Your task to perform on an android device: turn off notifications settings in the gmail app Image 0: 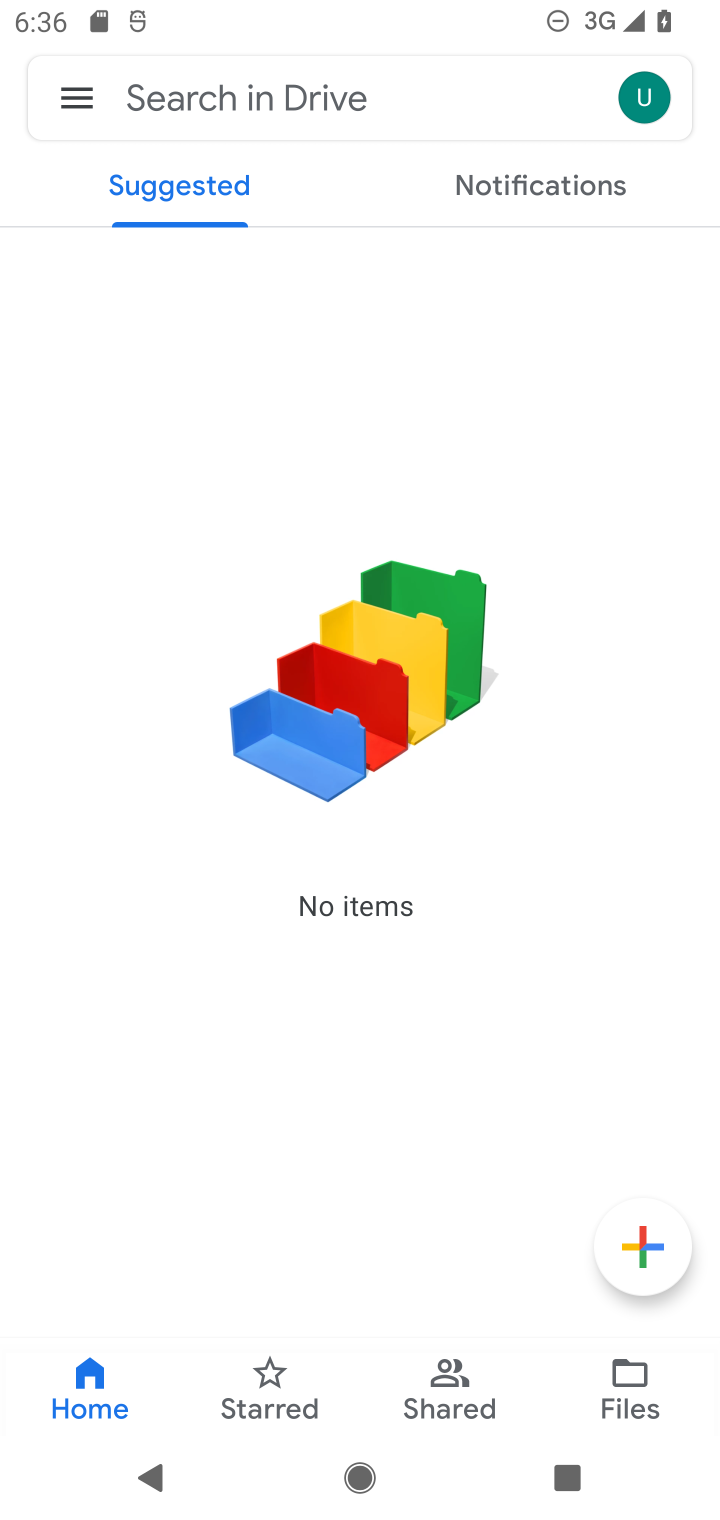
Step 0: press home button
Your task to perform on an android device: turn off notifications settings in the gmail app Image 1: 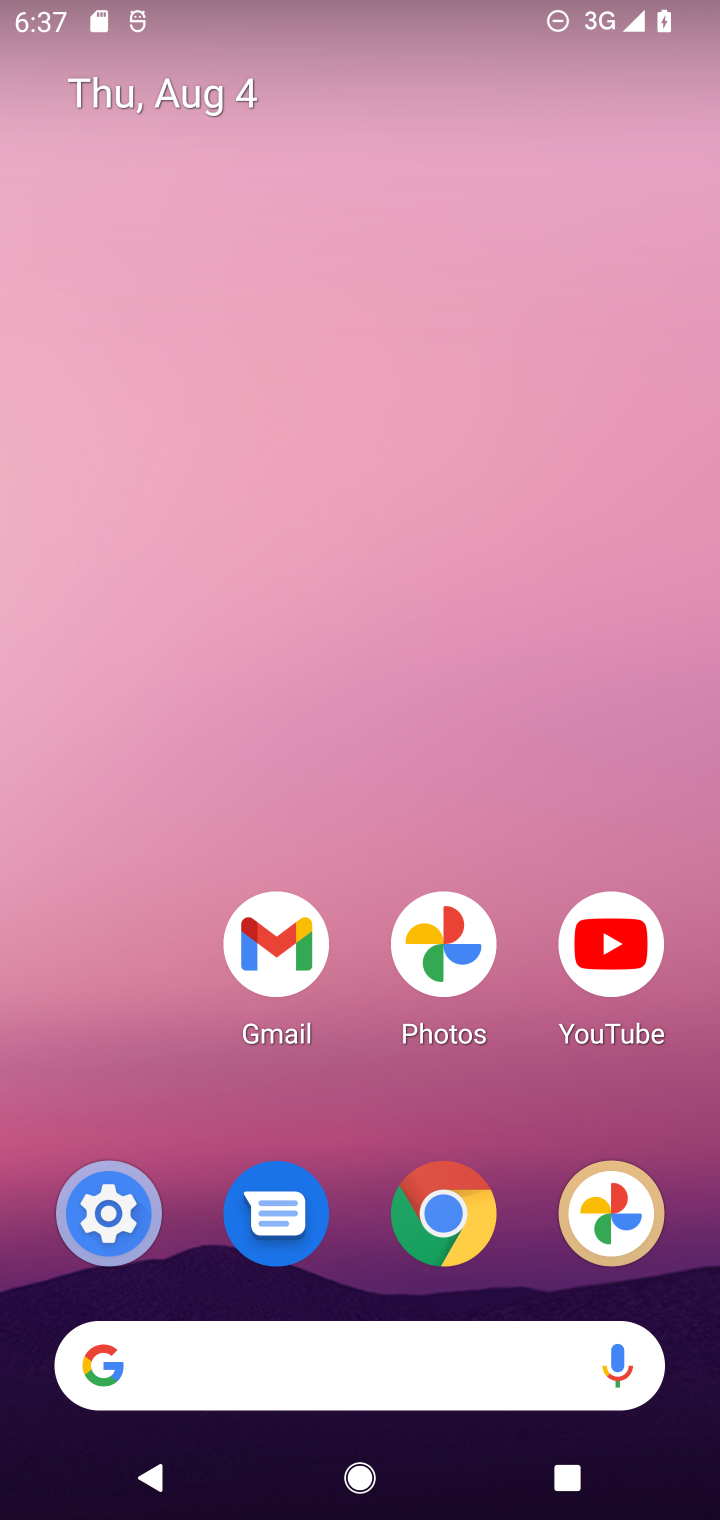
Step 1: drag from (155, 1105) to (108, 203)
Your task to perform on an android device: turn off notifications settings in the gmail app Image 2: 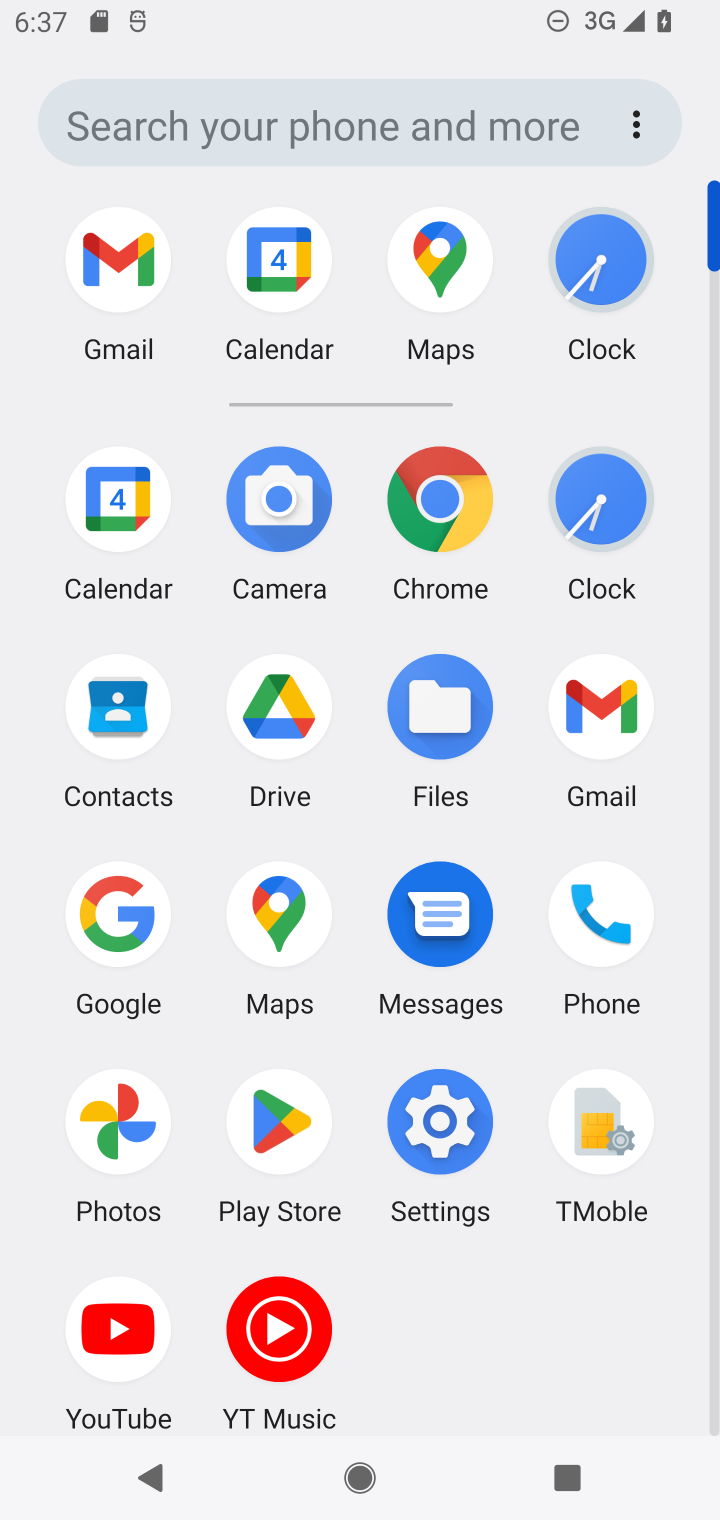
Step 2: click (605, 707)
Your task to perform on an android device: turn off notifications settings in the gmail app Image 3: 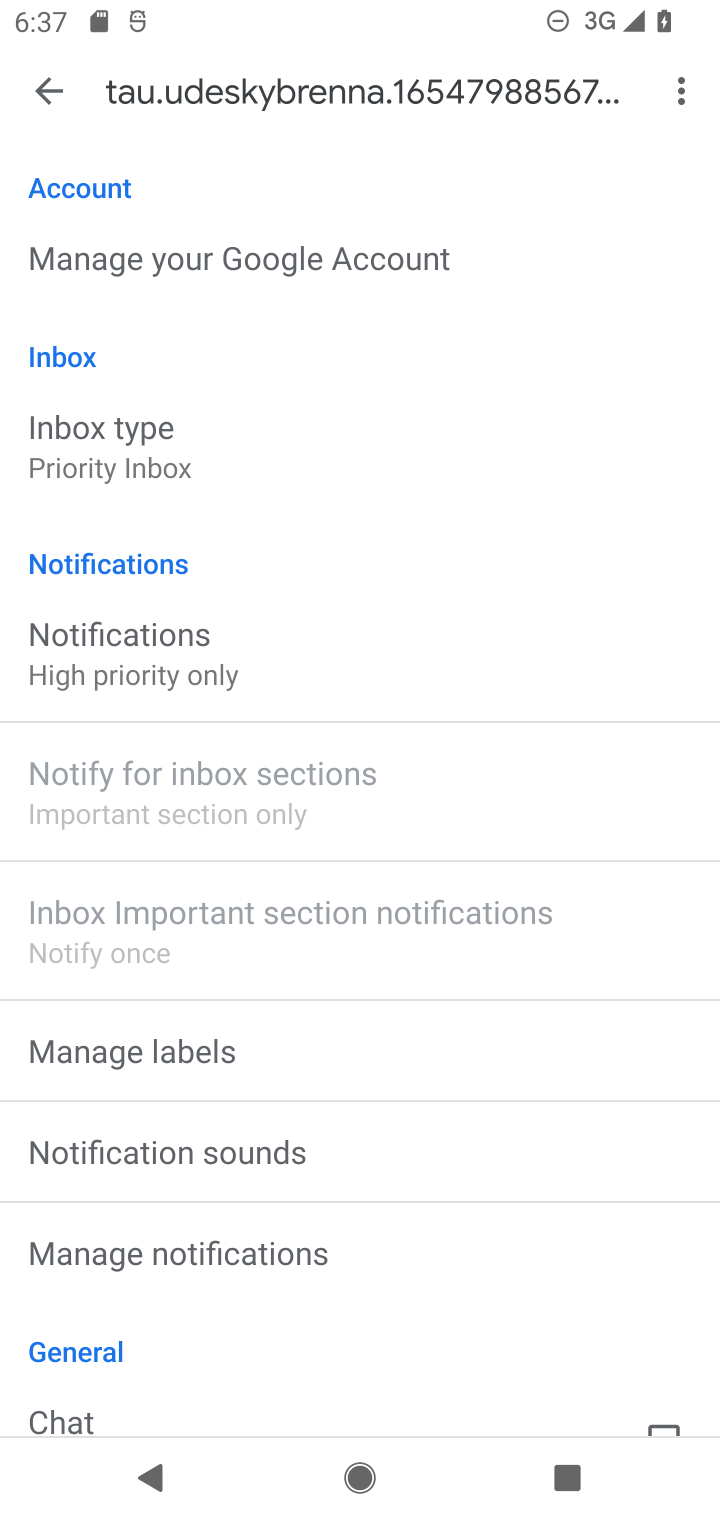
Step 3: drag from (515, 1268) to (539, 756)
Your task to perform on an android device: turn off notifications settings in the gmail app Image 4: 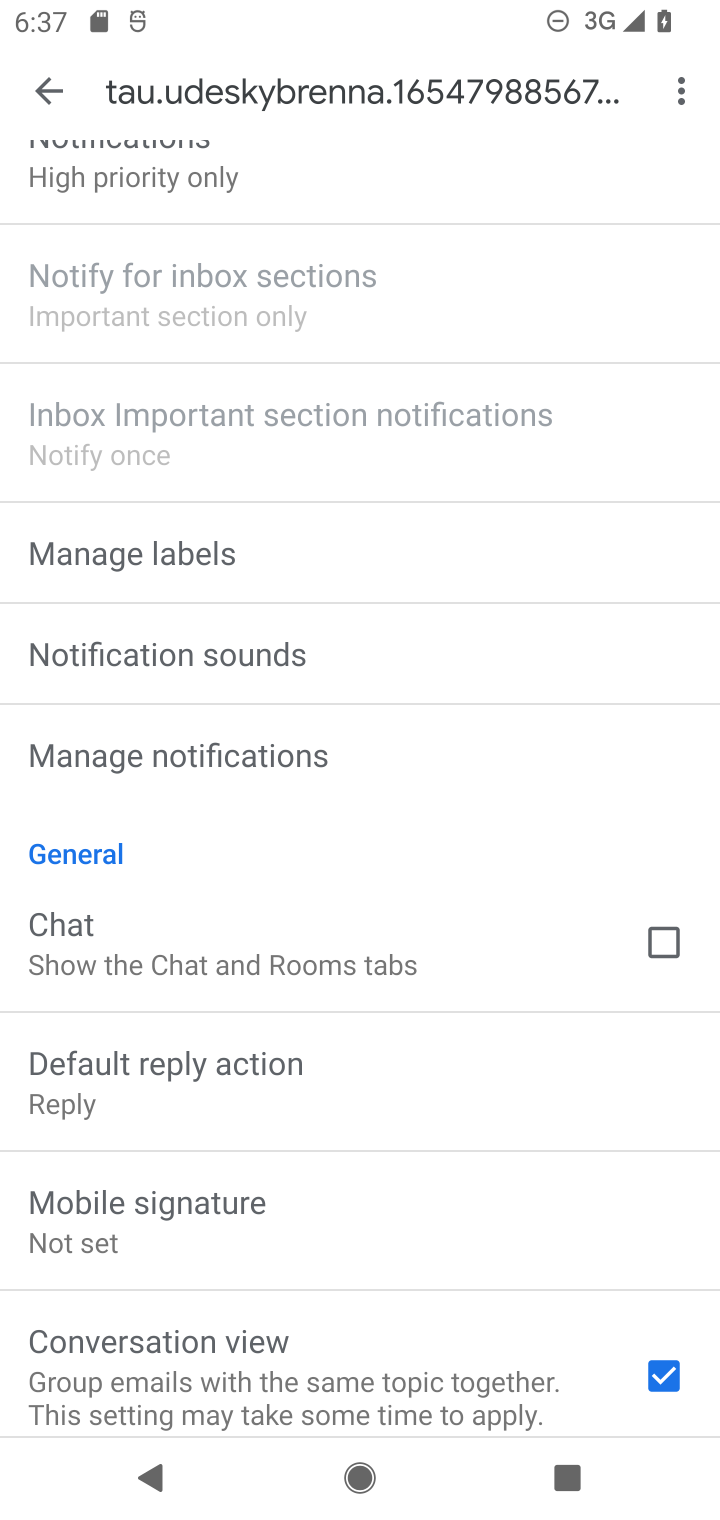
Step 4: drag from (479, 1232) to (500, 742)
Your task to perform on an android device: turn off notifications settings in the gmail app Image 5: 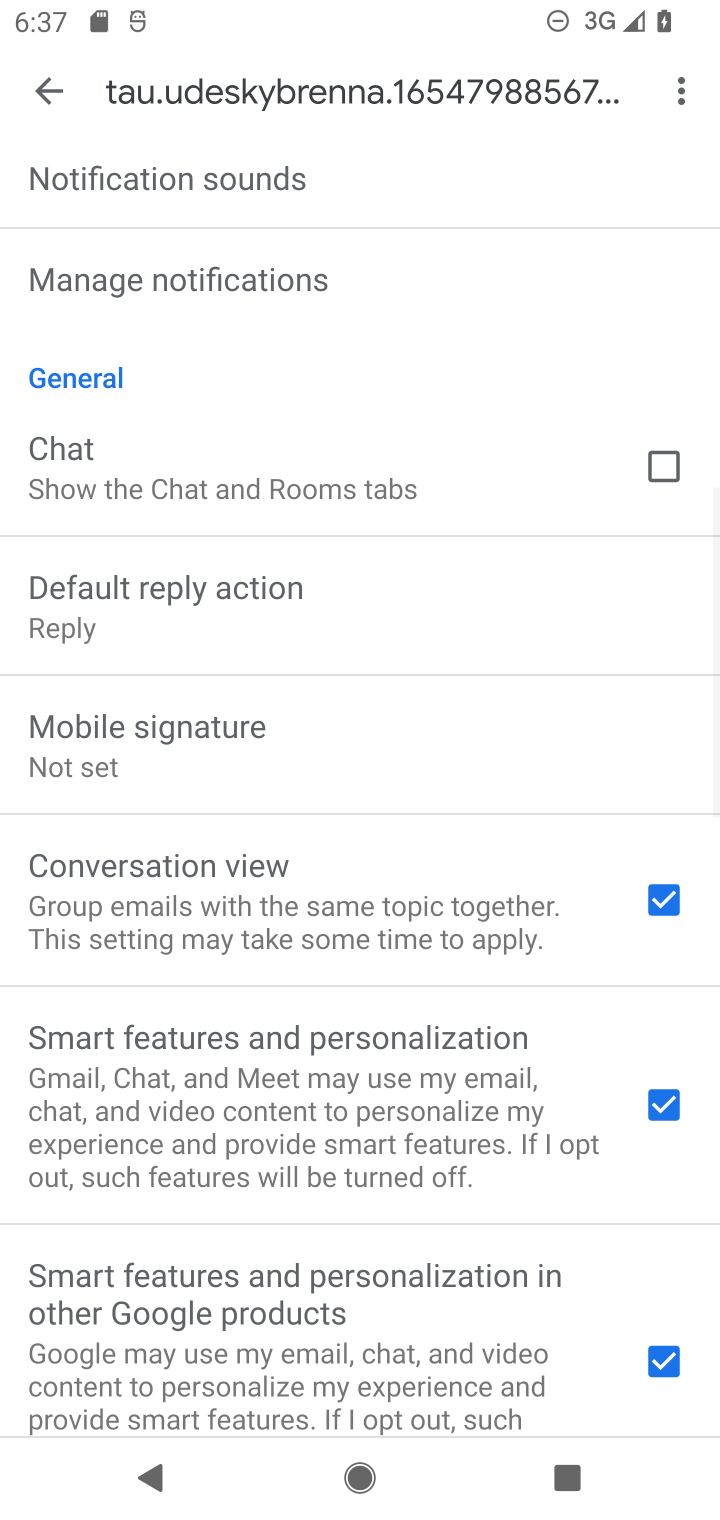
Step 5: drag from (435, 1237) to (446, 756)
Your task to perform on an android device: turn off notifications settings in the gmail app Image 6: 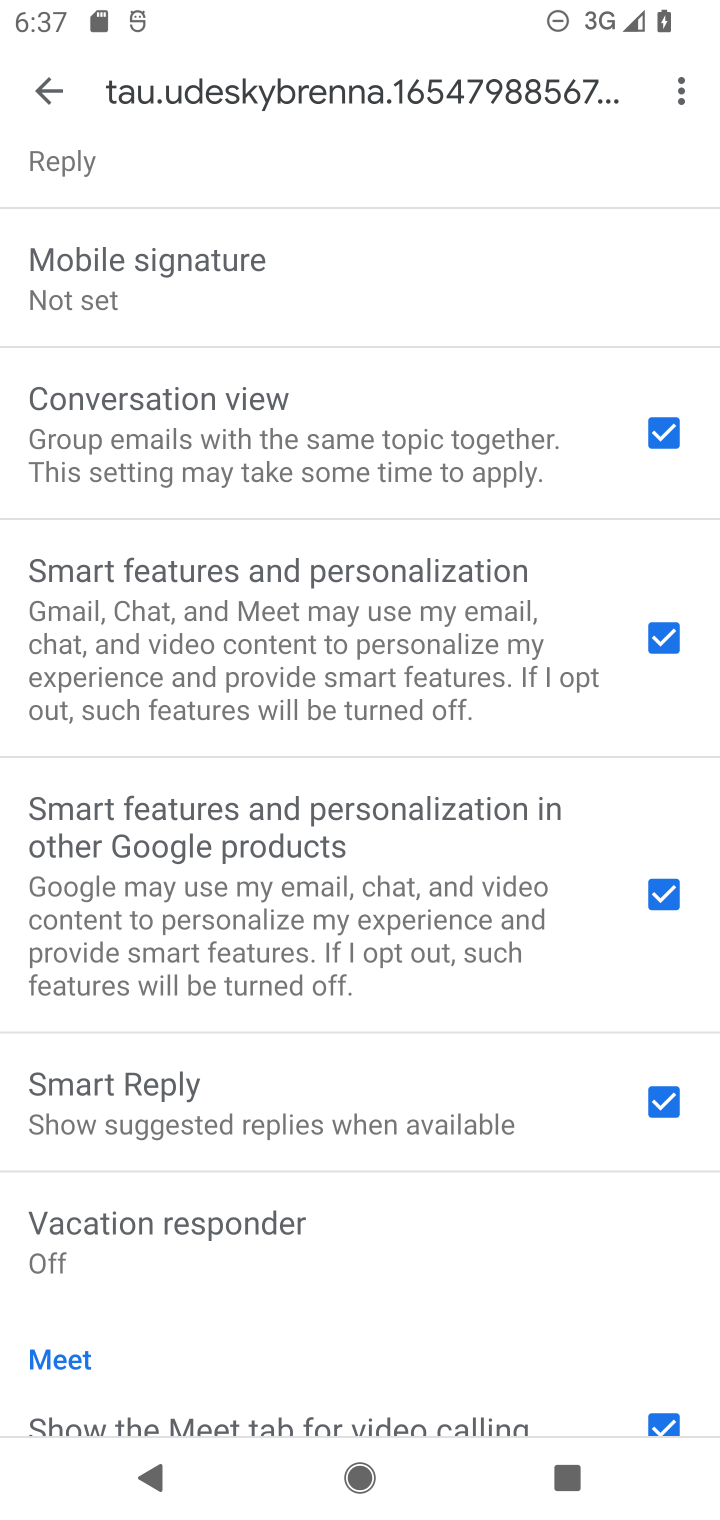
Step 6: drag from (441, 1288) to (445, 964)
Your task to perform on an android device: turn off notifications settings in the gmail app Image 7: 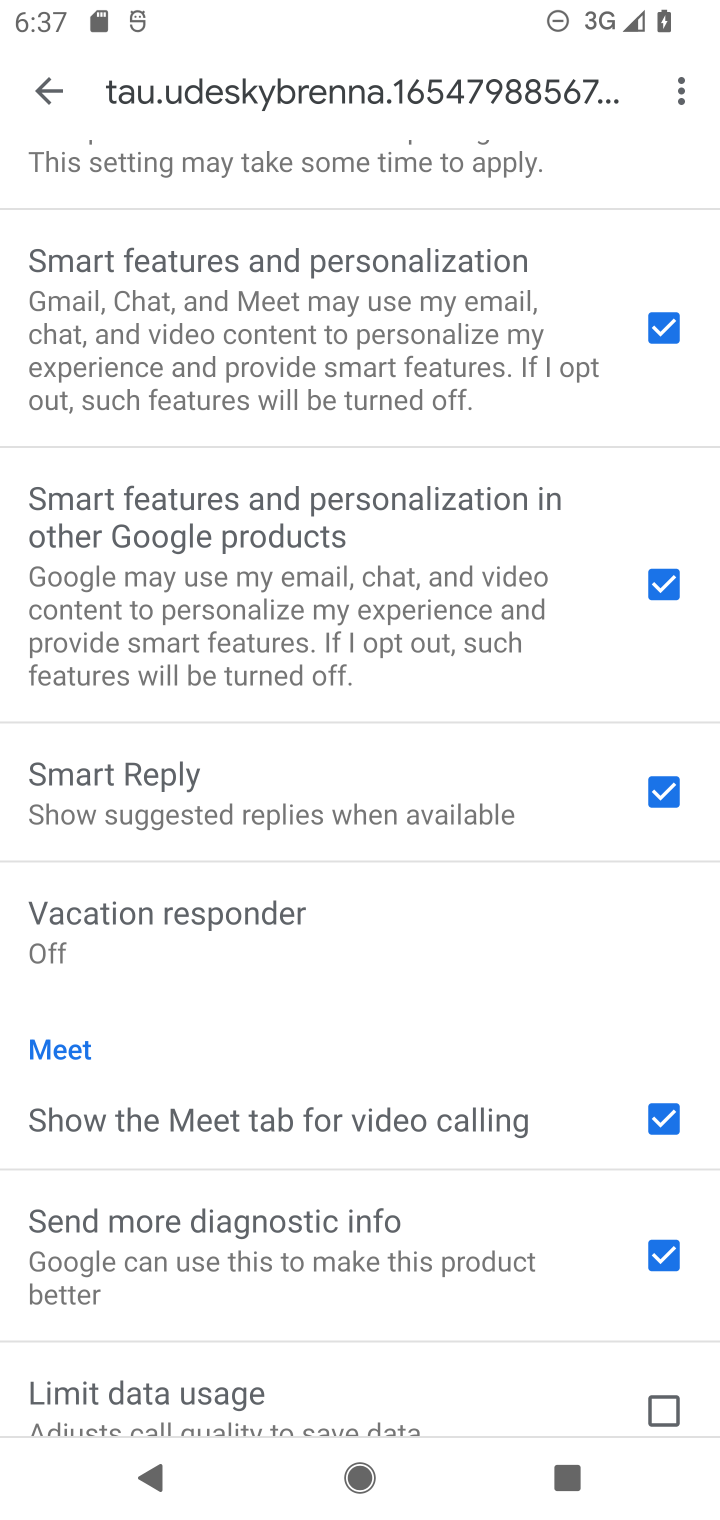
Step 7: drag from (435, 1332) to (441, 910)
Your task to perform on an android device: turn off notifications settings in the gmail app Image 8: 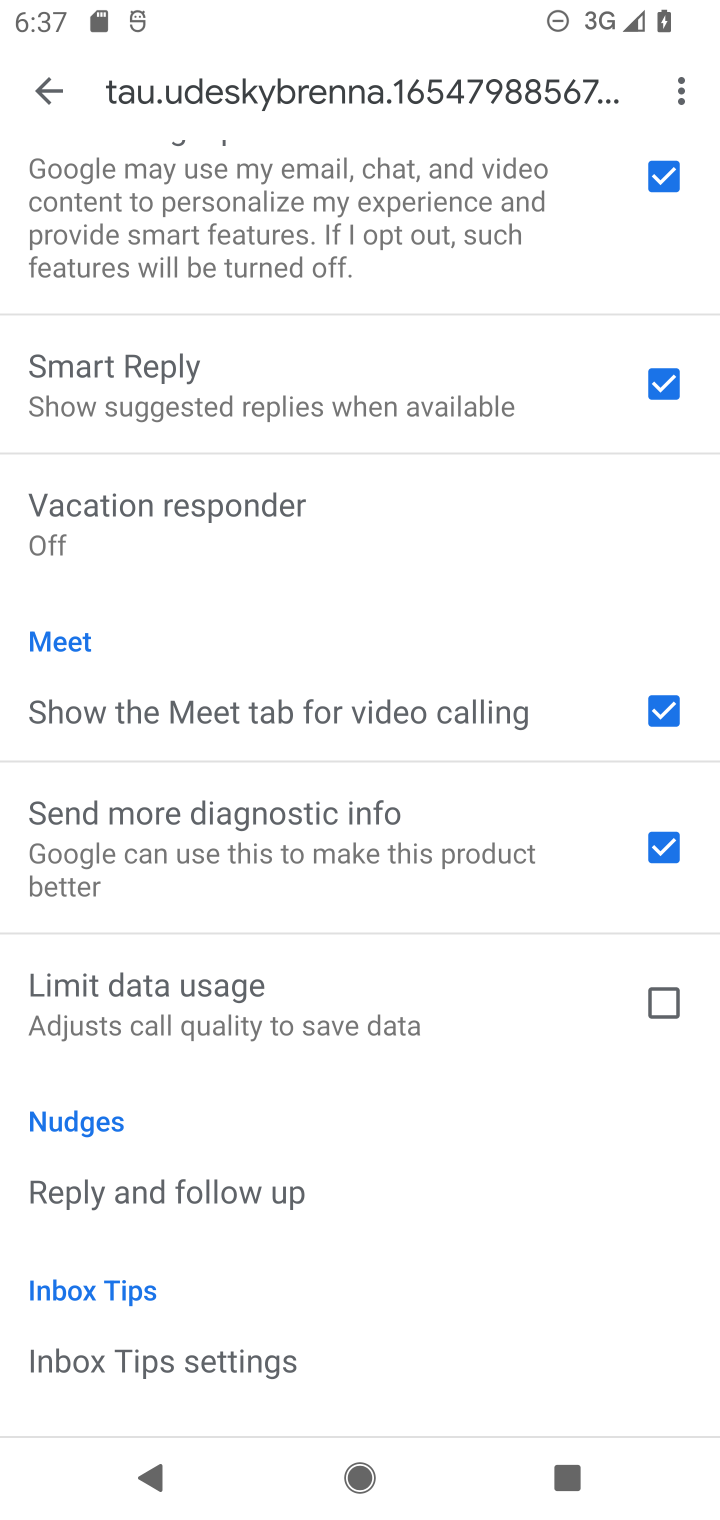
Step 8: drag from (457, 479) to (455, 787)
Your task to perform on an android device: turn off notifications settings in the gmail app Image 9: 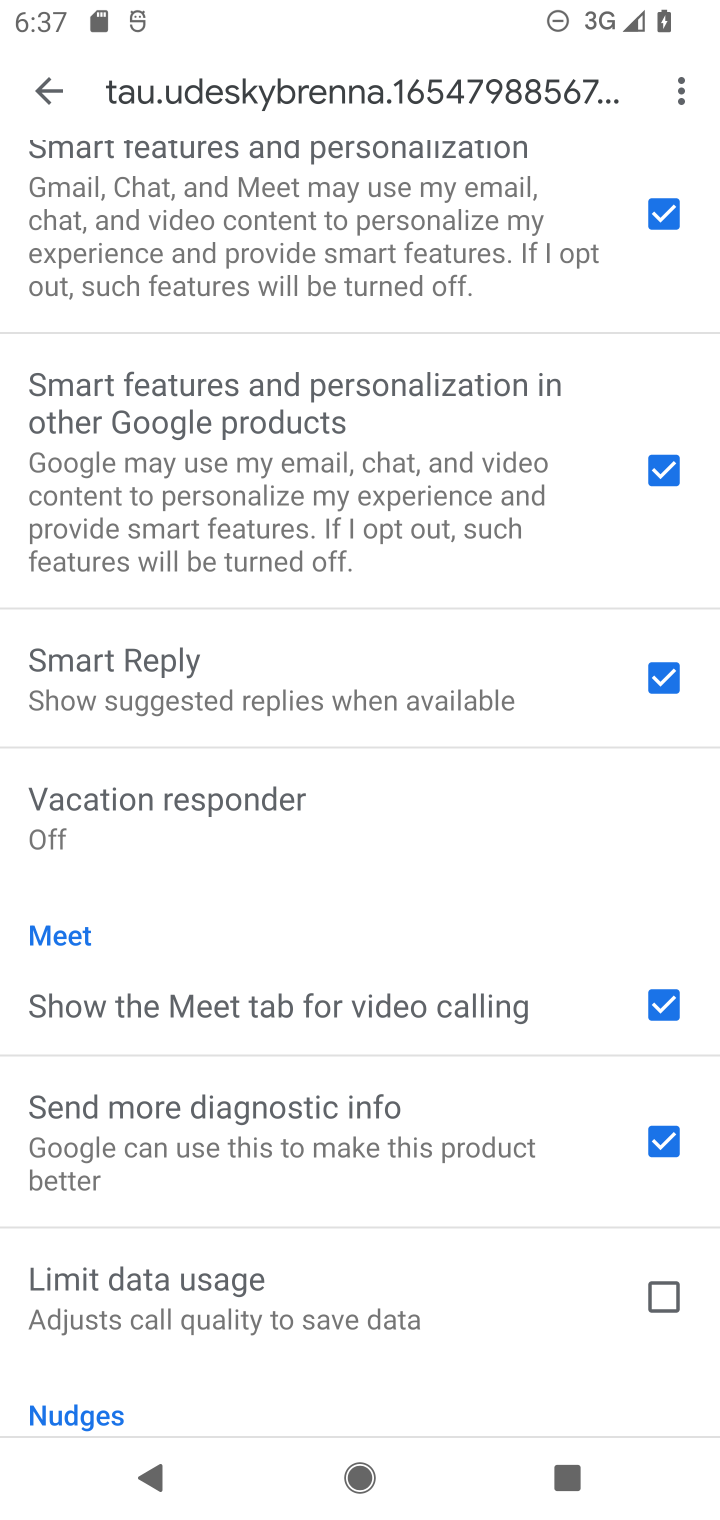
Step 9: drag from (403, 331) to (405, 787)
Your task to perform on an android device: turn off notifications settings in the gmail app Image 10: 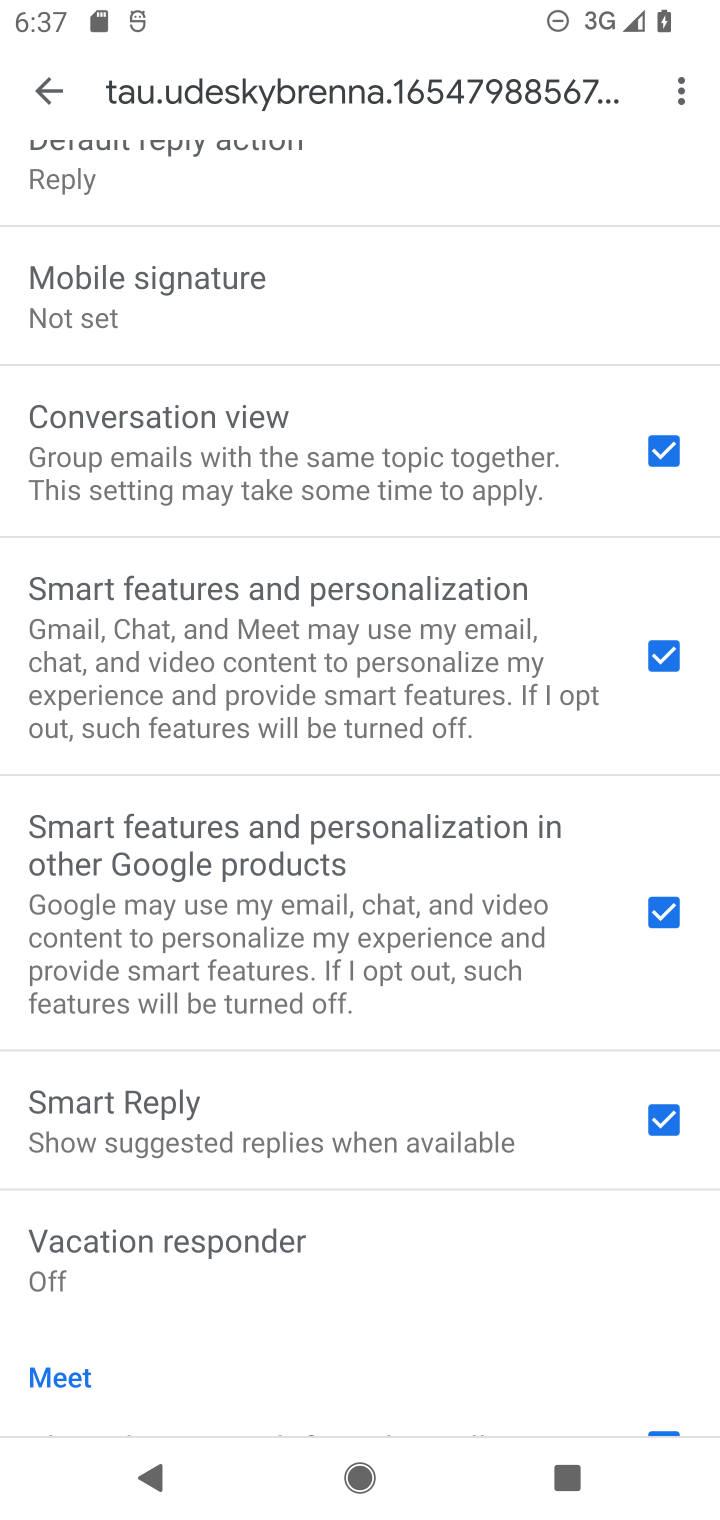
Step 10: drag from (447, 228) to (453, 773)
Your task to perform on an android device: turn off notifications settings in the gmail app Image 11: 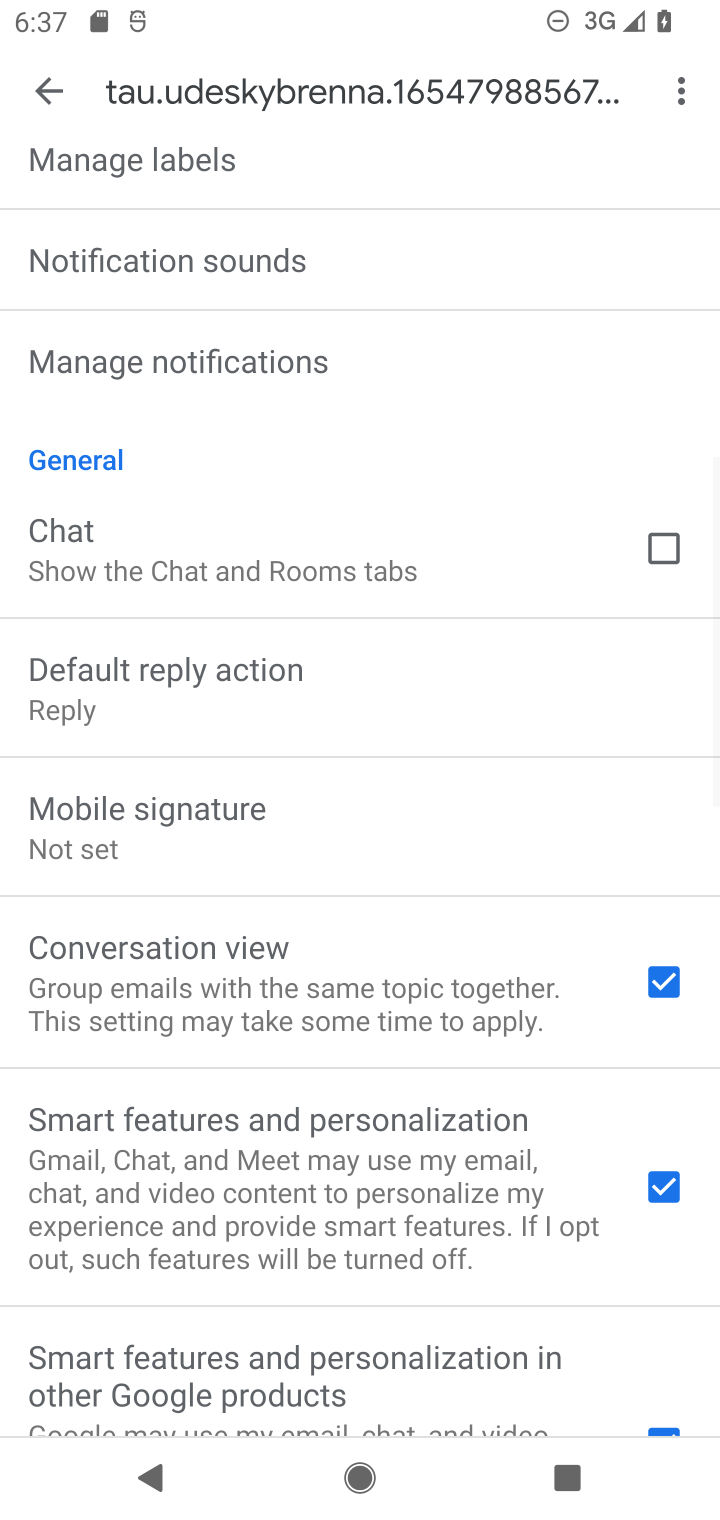
Step 11: drag from (459, 246) to (455, 764)
Your task to perform on an android device: turn off notifications settings in the gmail app Image 12: 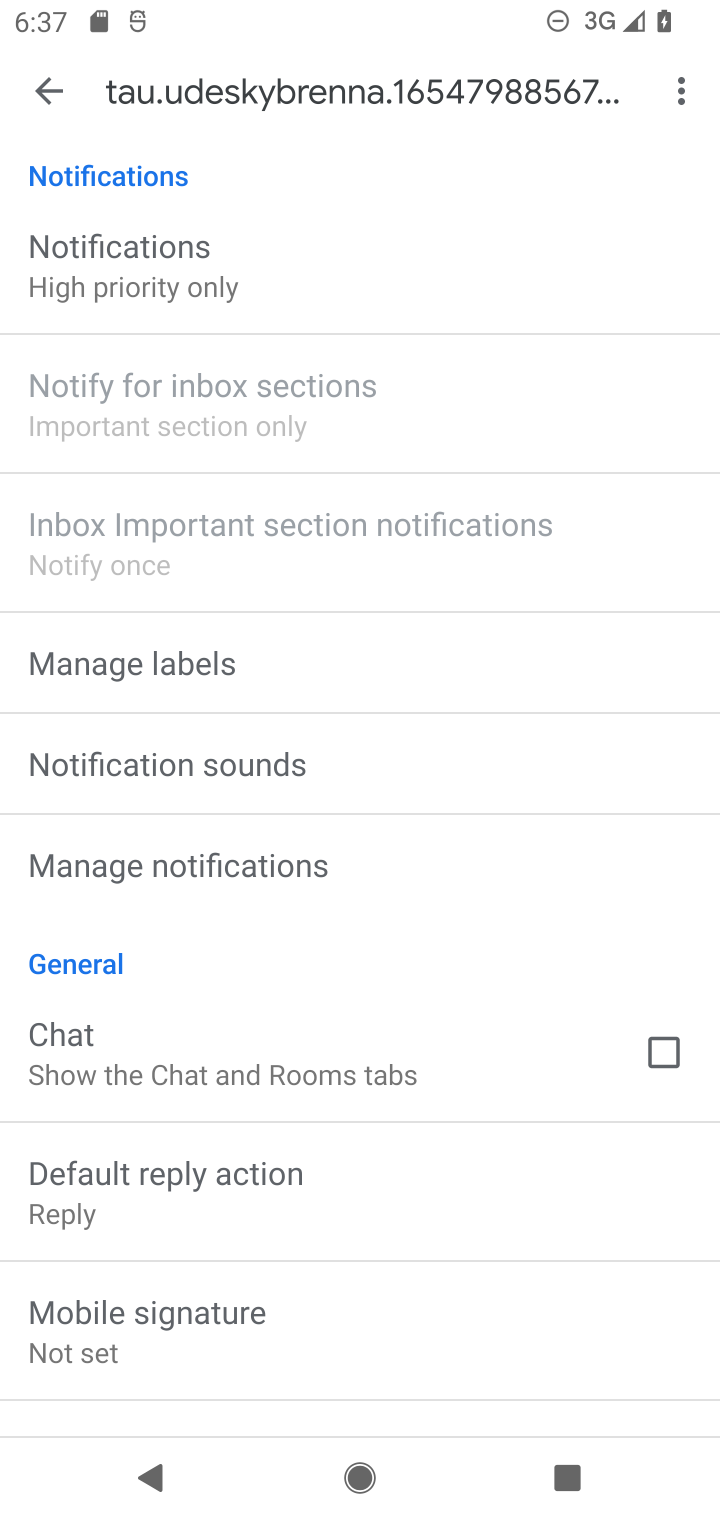
Step 12: drag from (476, 269) to (478, 925)
Your task to perform on an android device: turn off notifications settings in the gmail app Image 13: 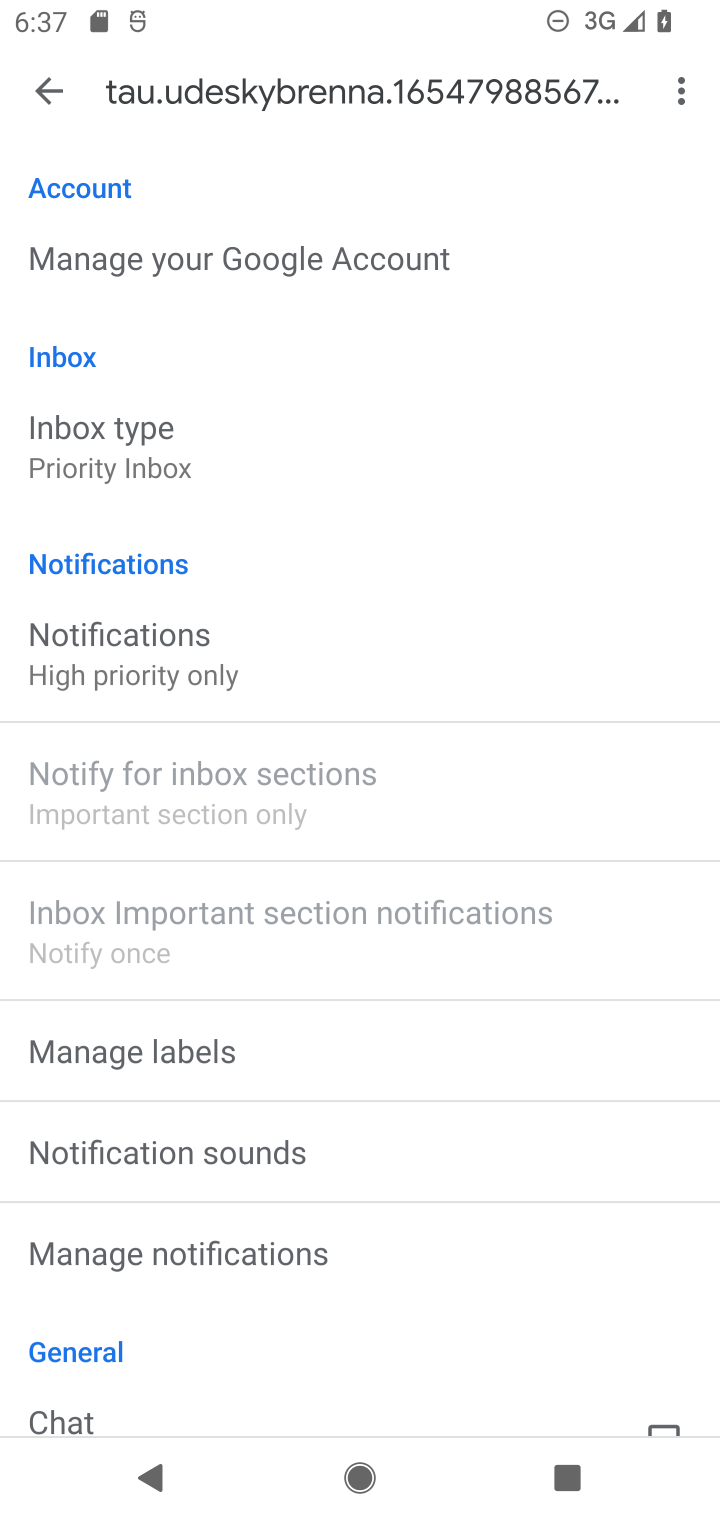
Step 13: drag from (530, 249) to (522, 623)
Your task to perform on an android device: turn off notifications settings in the gmail app Image 14: 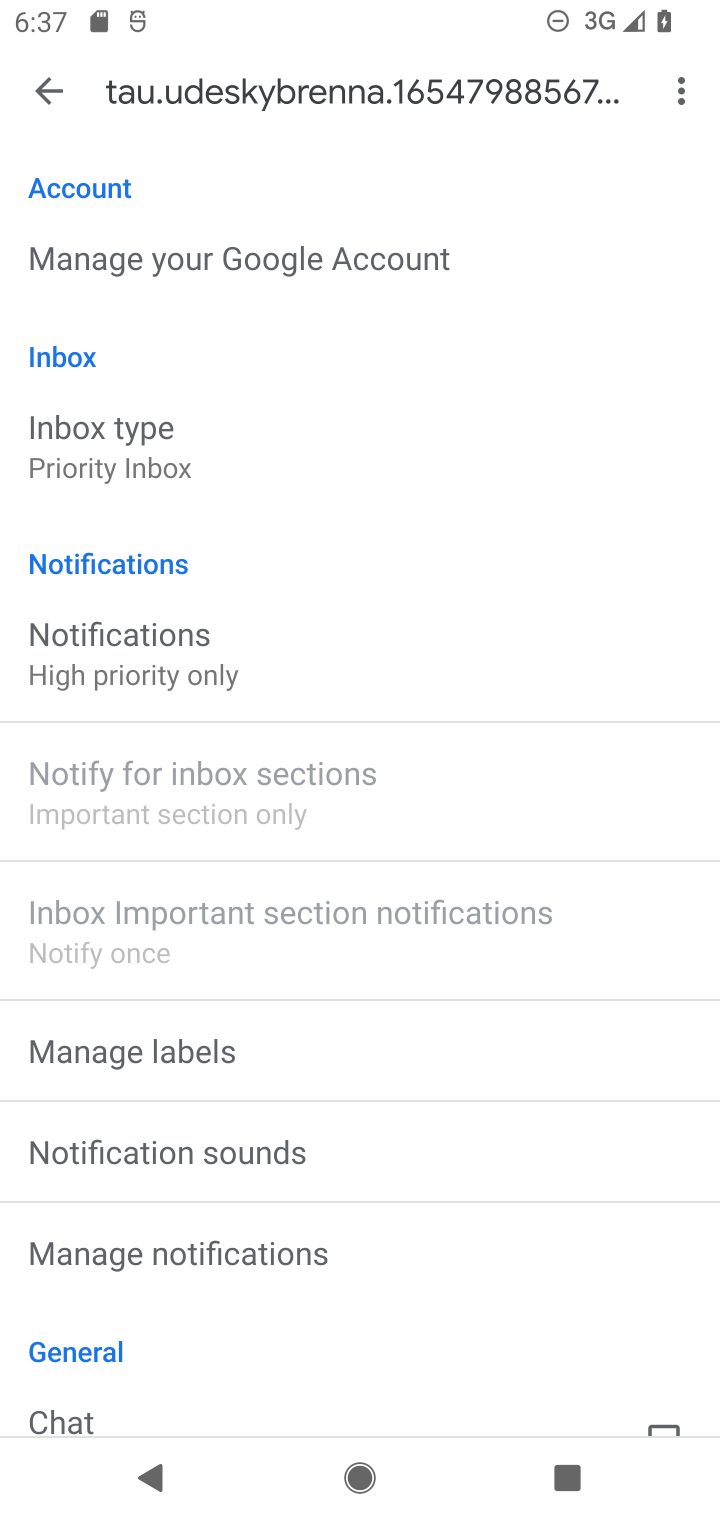
Step 14: drag from (453, 972) to (469, 542)
Your task to perform on an android device: turn off notifications settings in the gmail app Image 15: 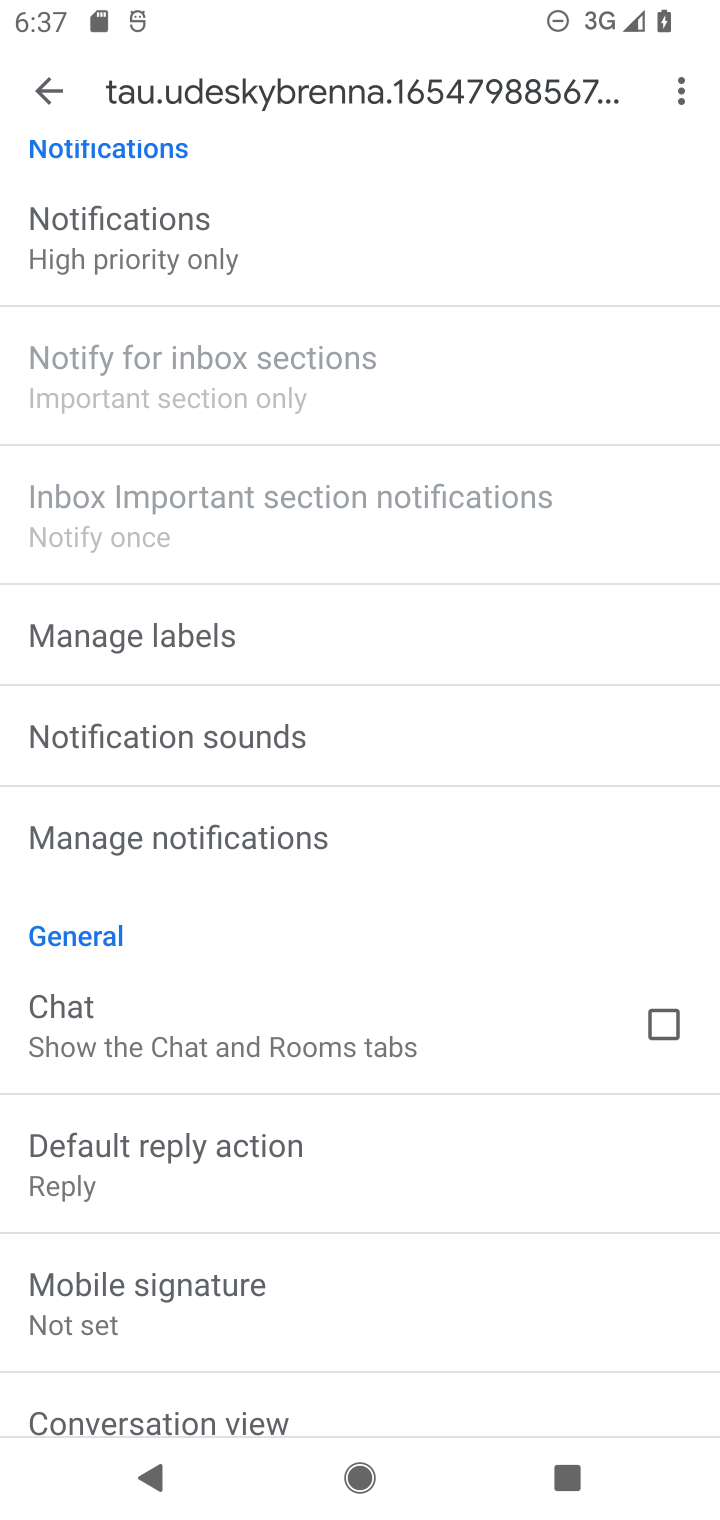
Step 15: drag from (469, 1109) to (474, 741)
Your task to perform on an android device: turn off notifications settings in the gmail app Image 16: 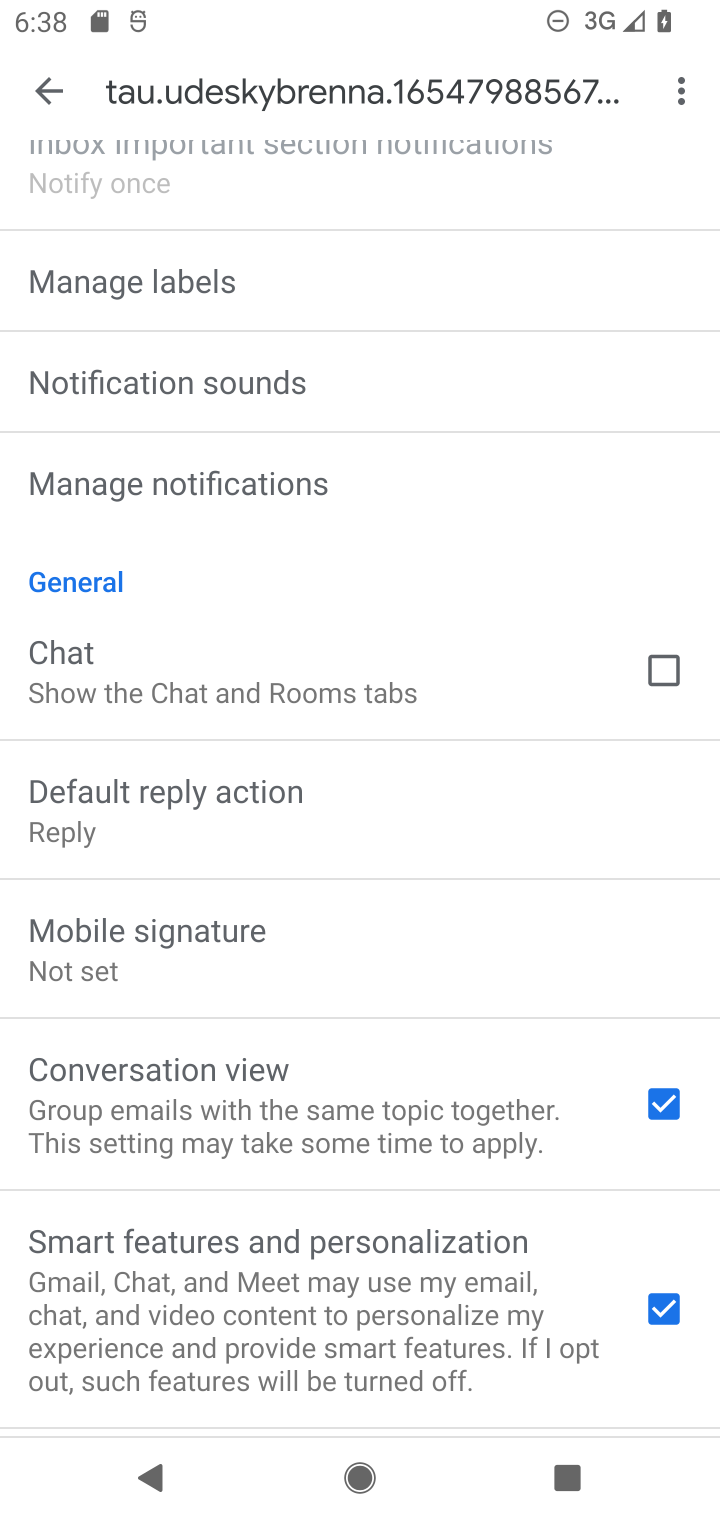
Step 16: click (363, 474)
Your task to perform on an android device: turn off notifications settings in the gmail app Image 17: 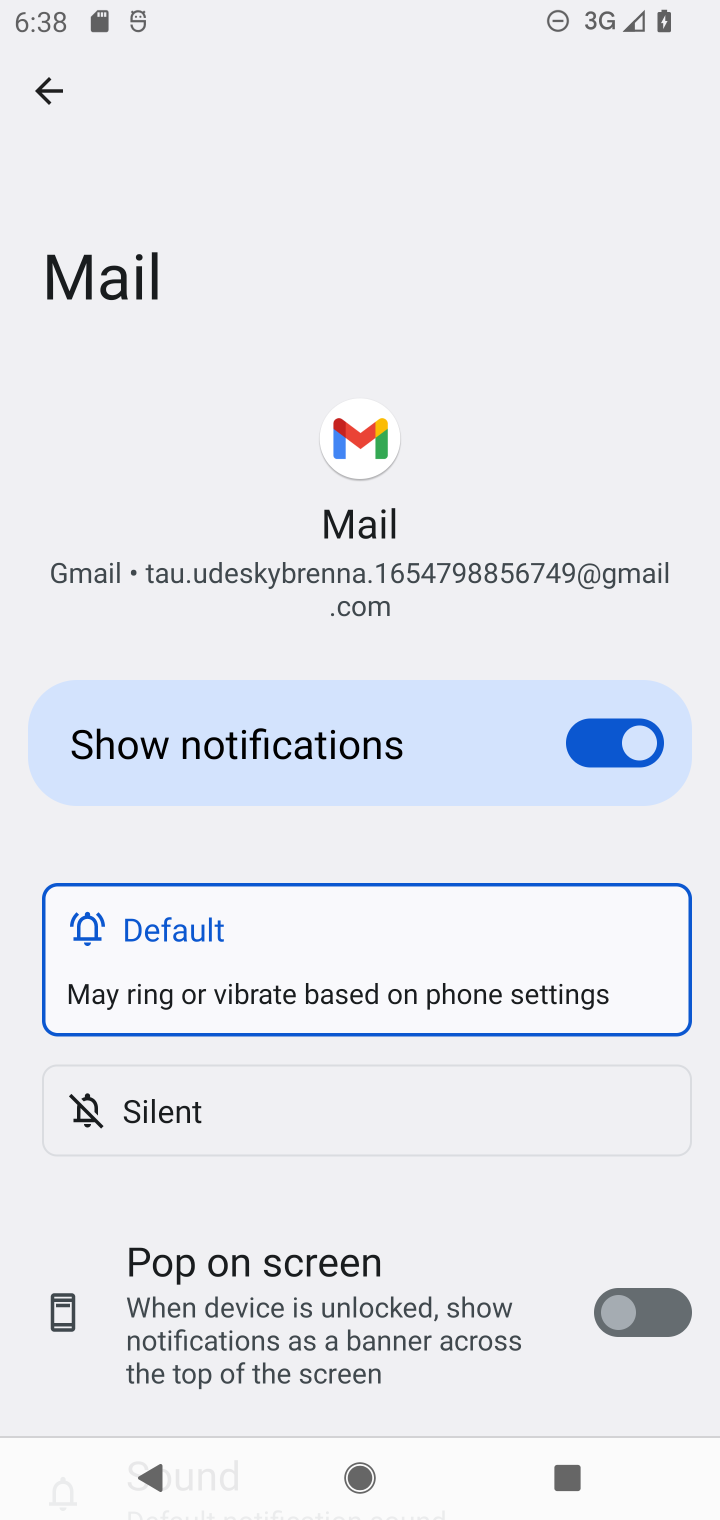
Step 17: click (620, 741)
Your task to perform on an android device: turn off notifications settings in the gmail app Image 18: 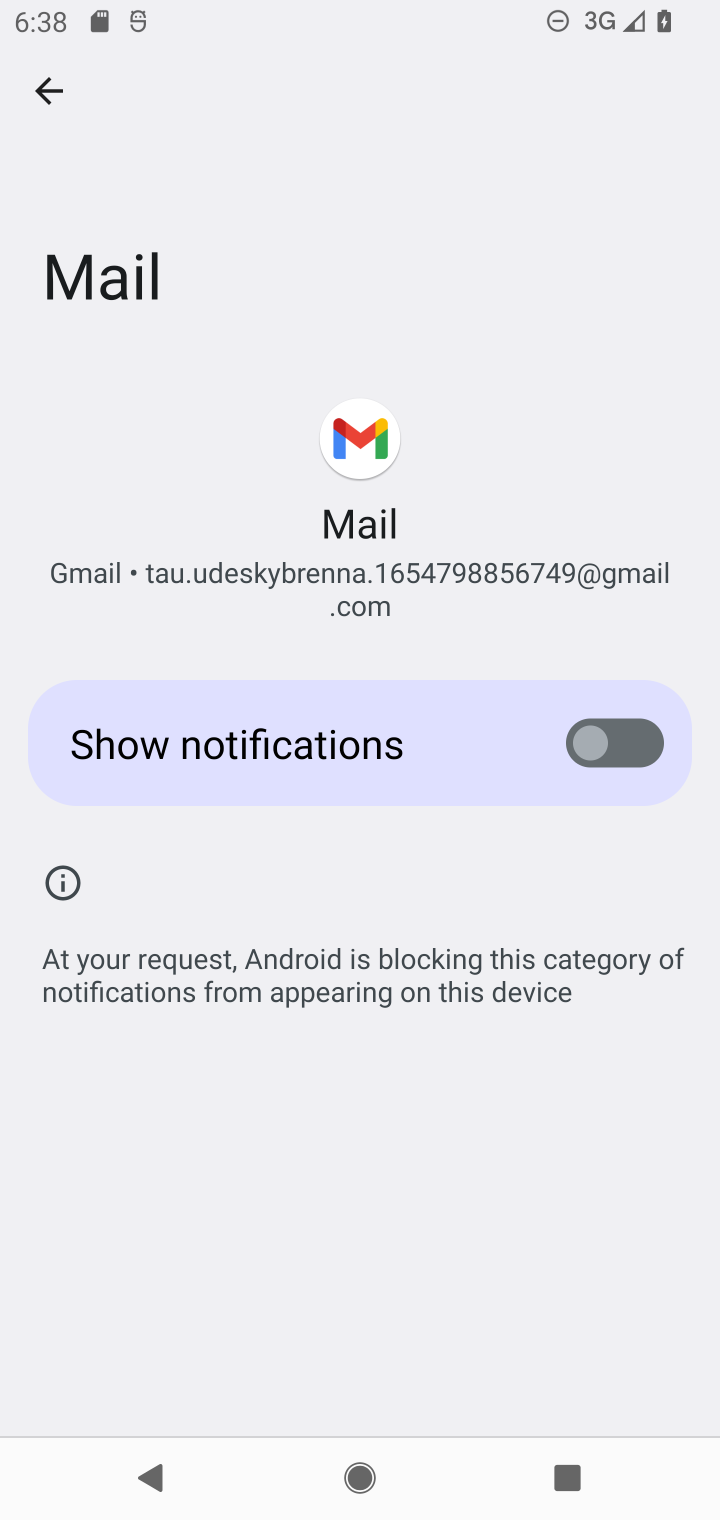
Step 18: task complete